Your task to perform on an android device: View the shopping cart on target. Add razer huntsman to the cart on target Image 0: 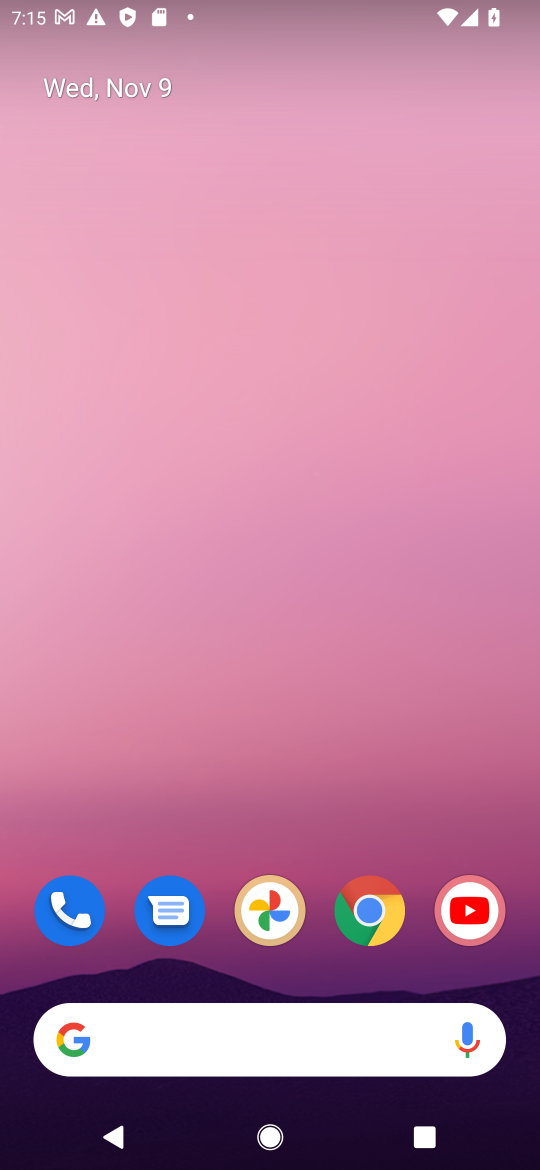
Step 0: click (363, 929)
Your task to perform on an android device: View the shopping cart on target. Add razer huntsman to the cart on target Image 1: 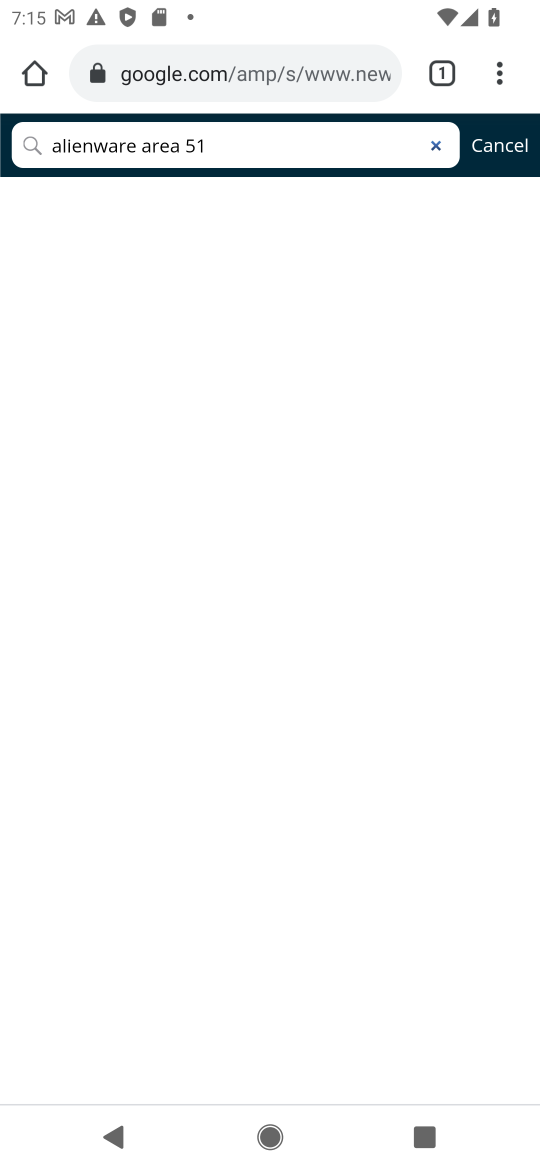
Step 1: click (229, 80)
Your task to perform on an android device: View the shopping cart on target. Add razer huntsman to the cart on target Image 2: 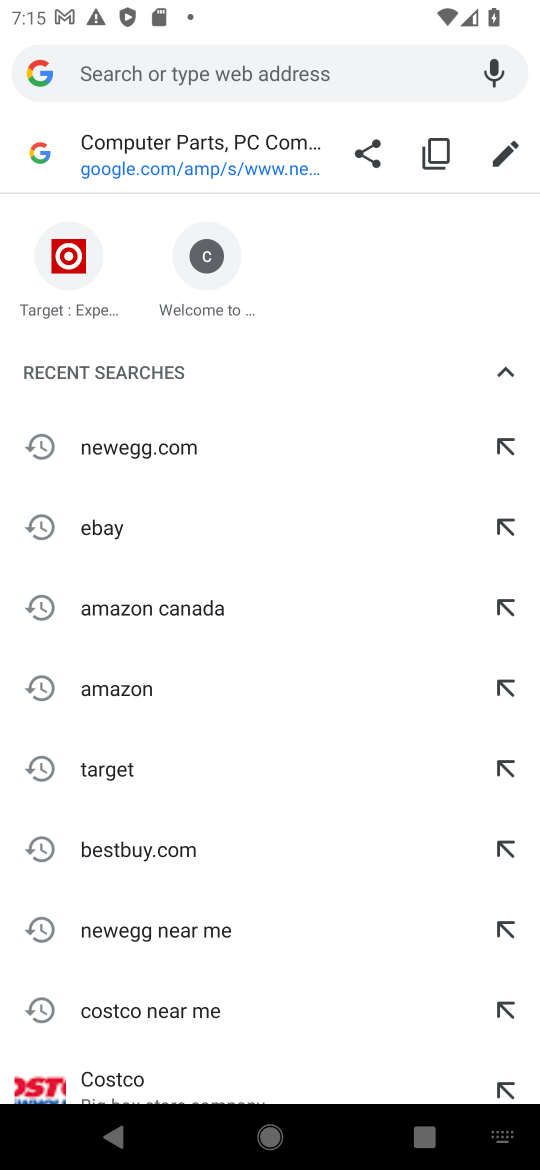
Step 2: click (69, 273)
Your task to perform on an android device: View the shopping cart on target. Add razer huntsman to the cart on target Image 3: 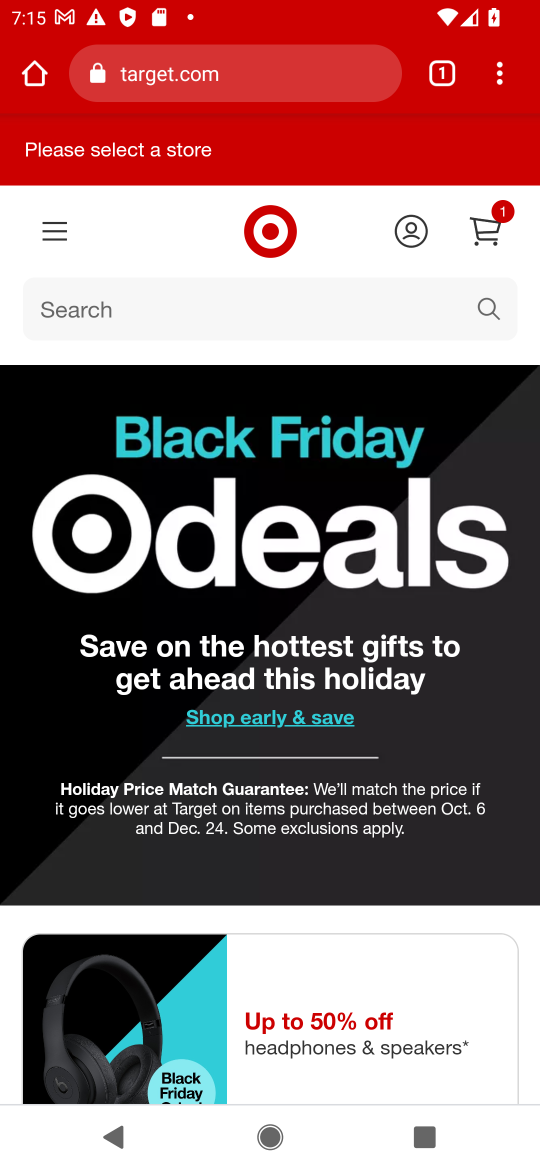
Step 3: click (490, 238)
Your task to perform on an android device: View the shopping cart on target. Add razer huntsman to the cart on target Image 4: 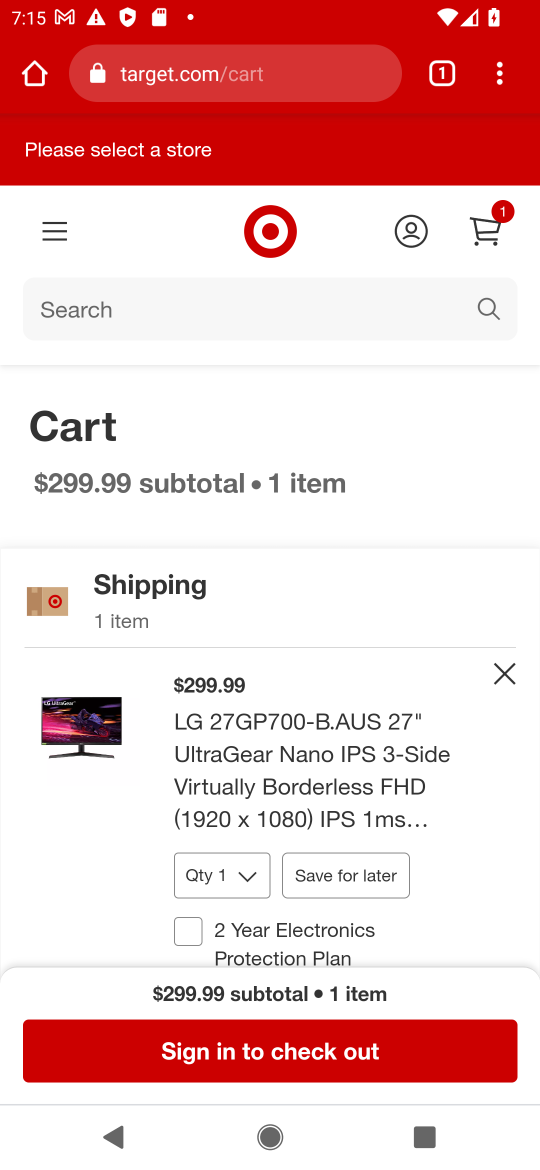
Step 4: drag from (310, 673) to (339, 426)
Your task to perform on an android device: View the shopping cart on target. Add razer huntsman to the cart on target Image 5: 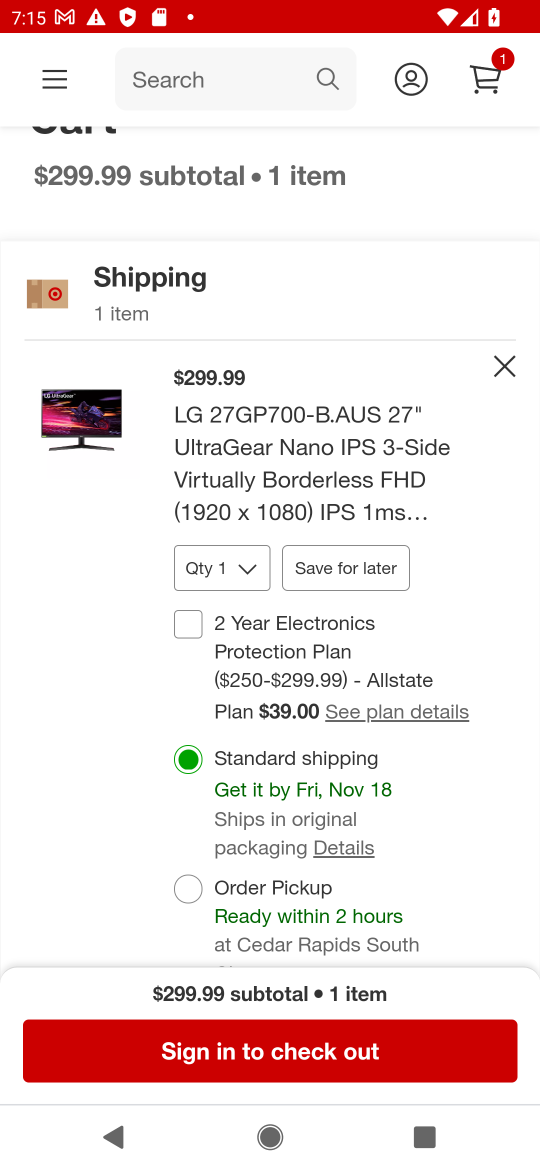
Step 5: drag from (186, 500) to (170, 977)
Your task to perform on an android device: View the shopping cart on target. Add razer huntsman to the cart on target Image 6: 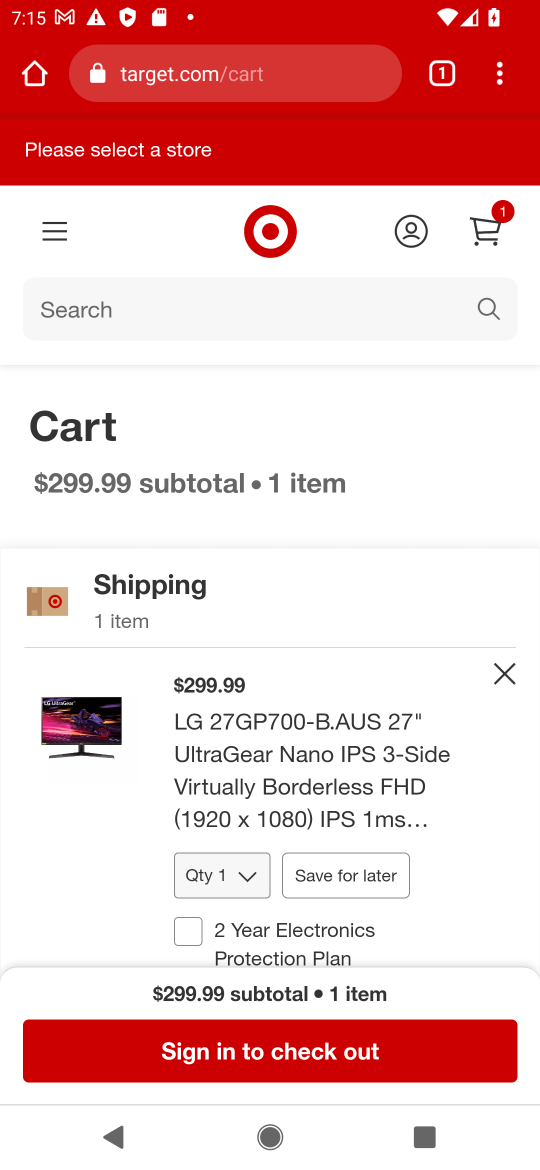
Step 6: click (480, 229)
Your task to perform on an android device: View the shopping cart on target. Add razer huntsman to the cart on target Image 7: 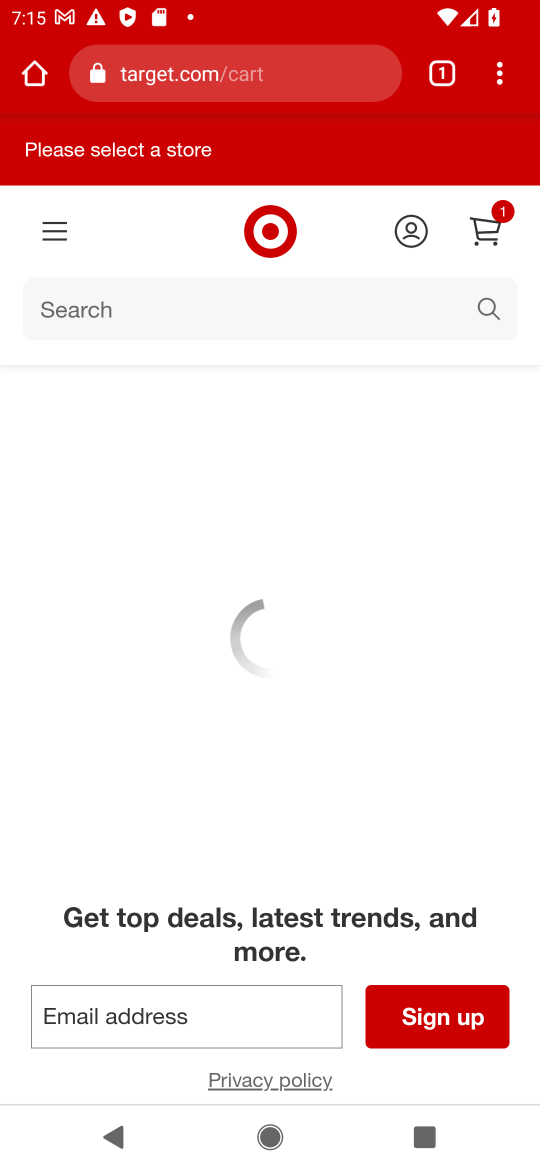
Step 7: click (480, 307)
Your task to perform on an android device: View the shopping cart on target. Add razer huntsman to the cart on target Image 8: 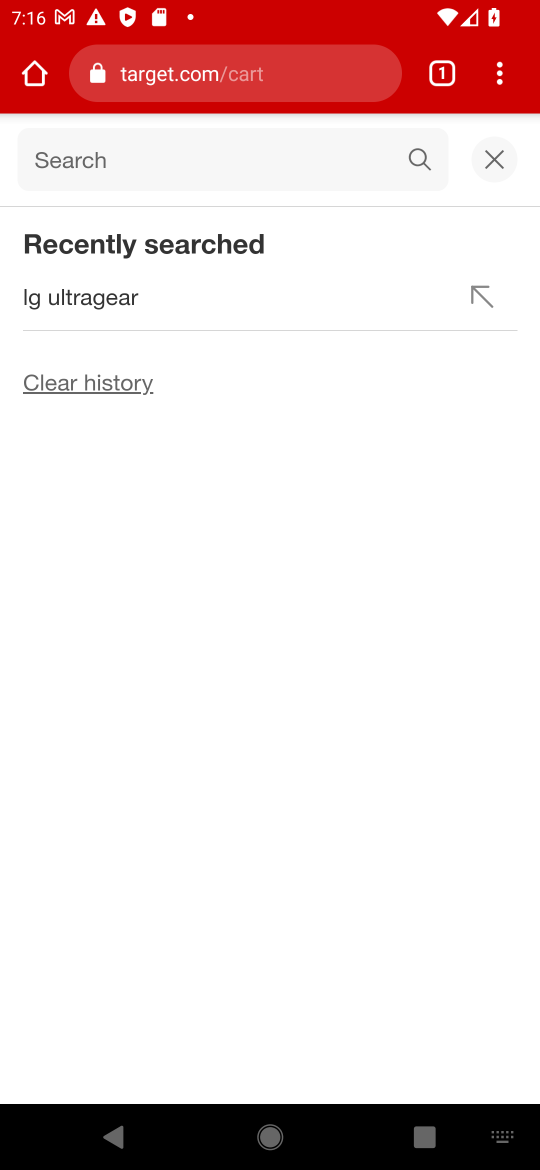
Step 8: type "razer huntsman"
Your task to perform on an android device: View the shopping cart on target. Add razer huntsman to the cart on target Image 9: 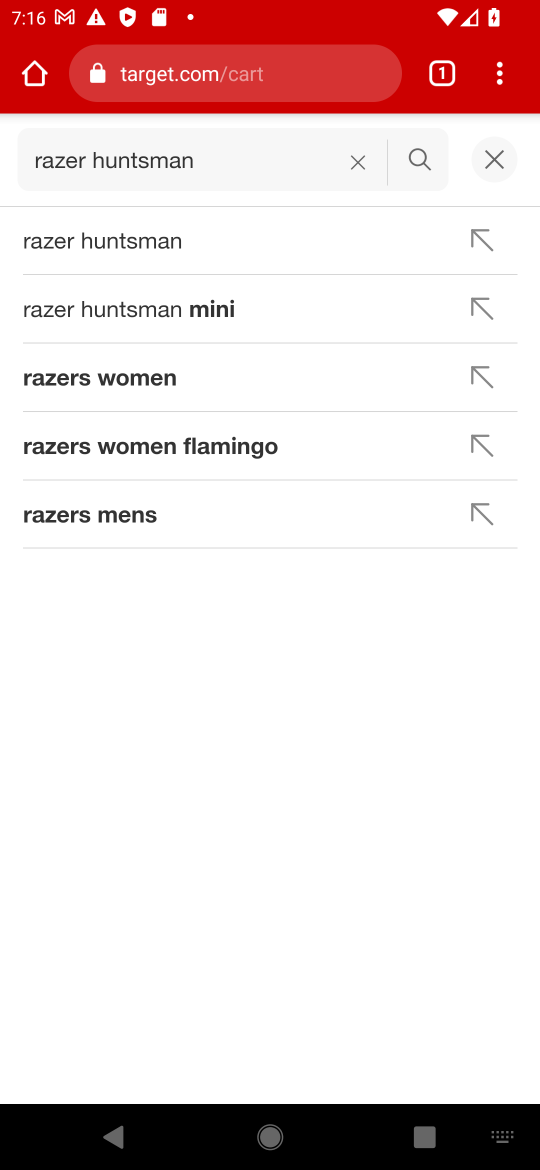
Step 9: click (88, 234)
Your task to perform on an android device: View the shopping cart on target. Add razer huntsman to the cart on target Image 10: 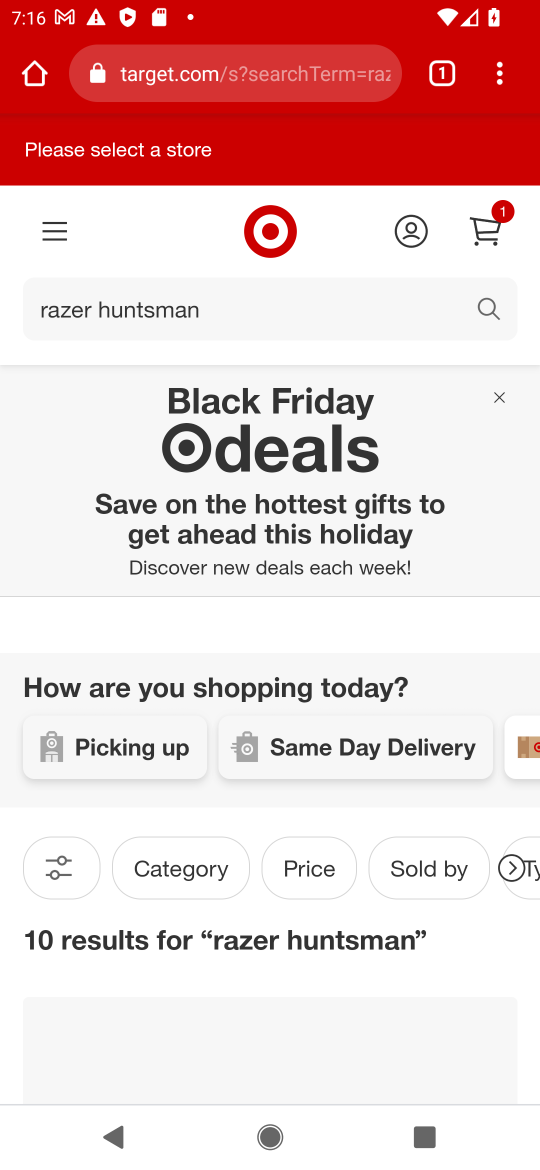
Step 10: drag from (264, 769) to (238, 314)
Your task to perform on an android device: View the shopping cart on target. Add razer huntsman to the cart on target Image 11: 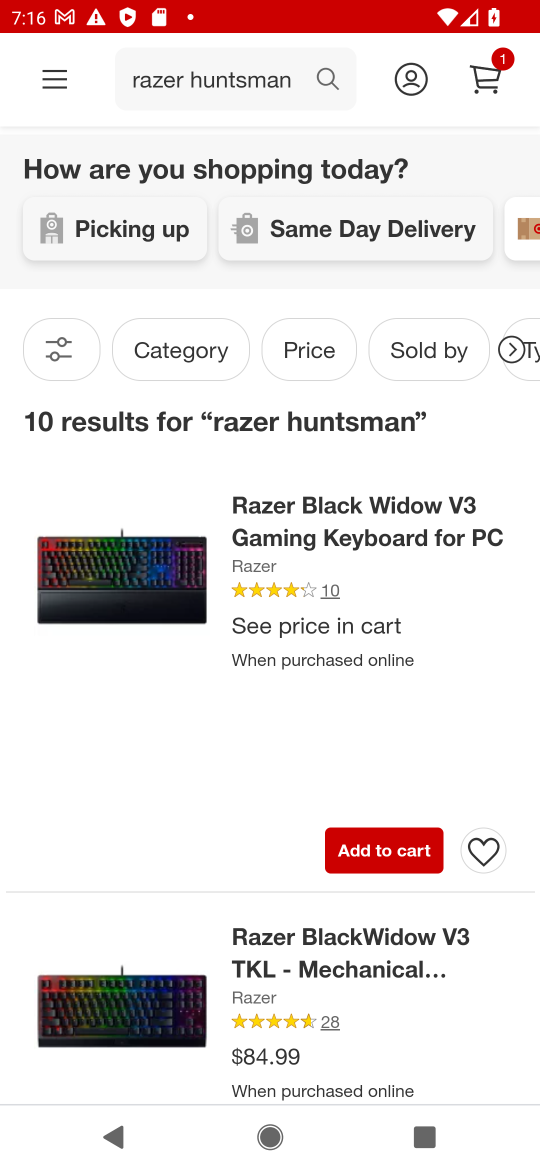
Step 11: drag from (174, 831) to (184, 479)
Your task to perform on an android device: View the shopping cart on target. Add razer huntsman to the cart on target Image 12: 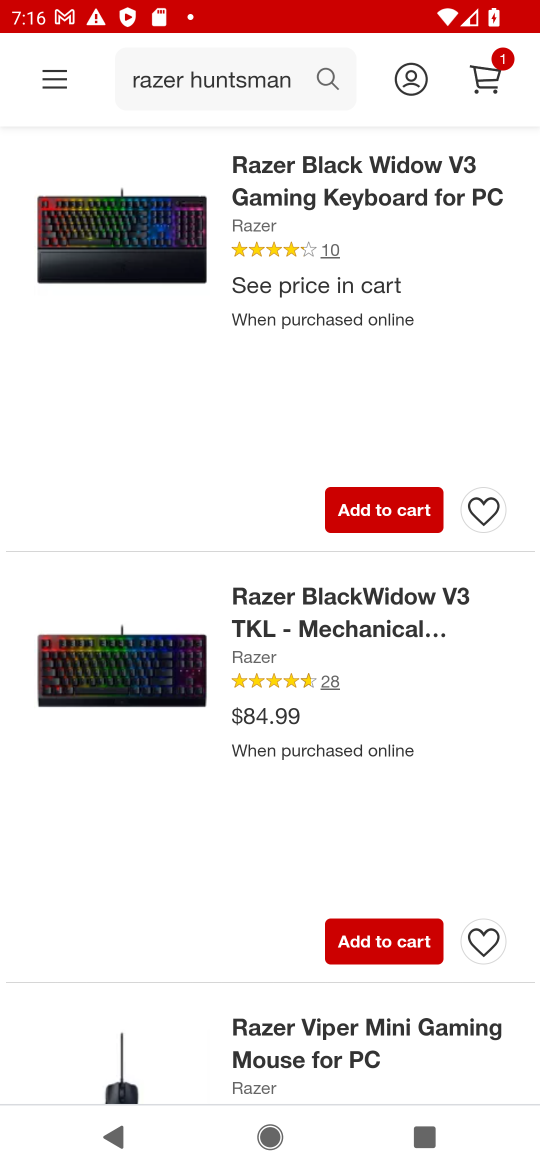
Step 12: drag from (221, 858) to (206, 377)
Your task to perform on an android device: View the shopping cart on target. Add razer huntsman to the cart on target Image 13: 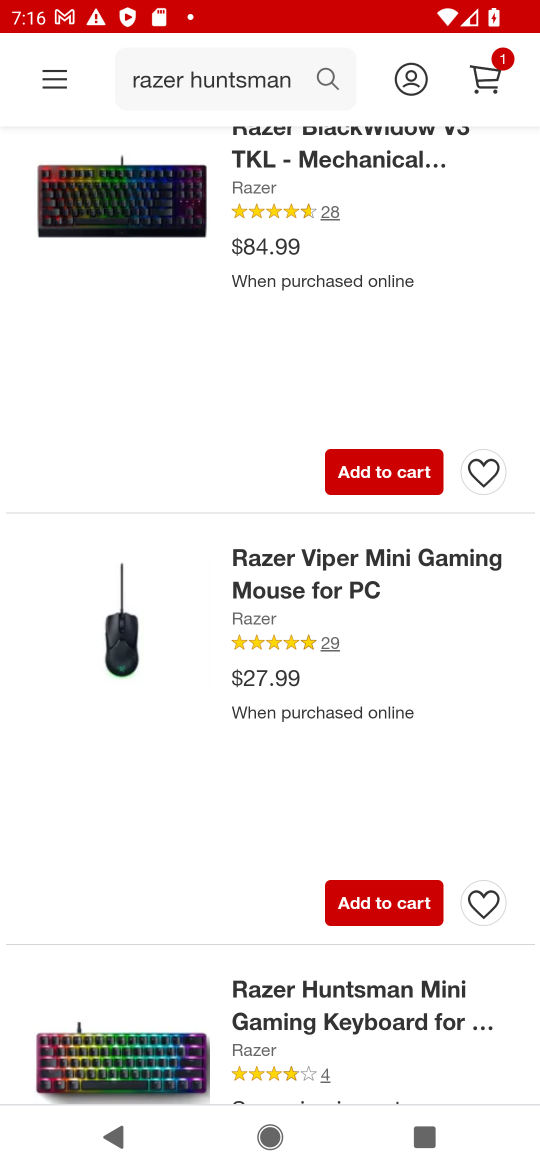
Step 13: drag from (223, 828) to (225, 551)
Your task to perform on an android device: View the shopping cart on target. Add razer huntsman to the cart on target Image 14: 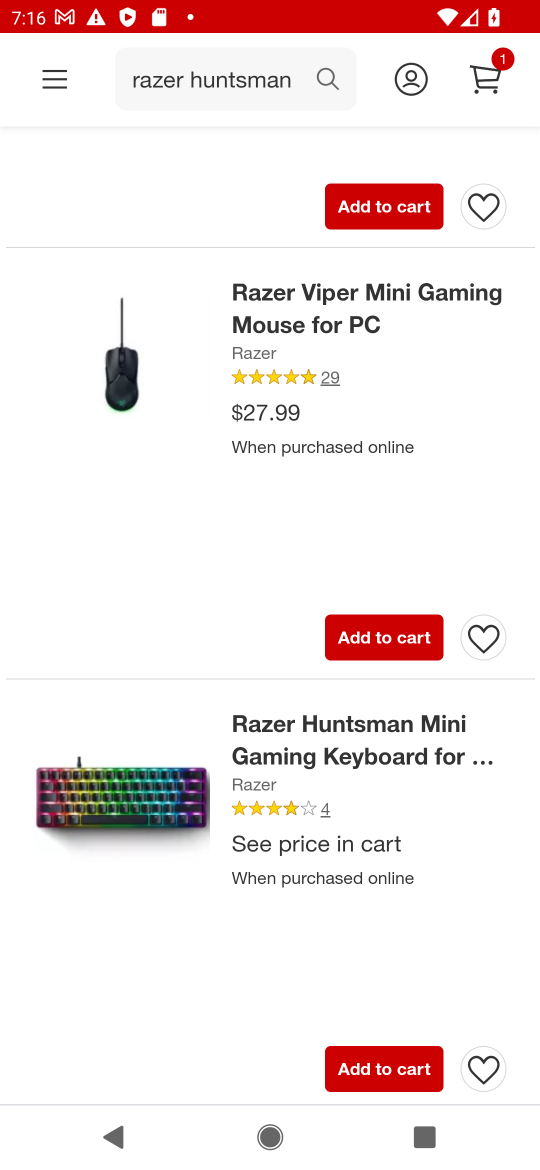
Step 14: drag from (227, 817) to (235, 636)
Your task to perform on an android device: View the shopping cart on target. Add razer huntsman to the cart on target Image 15: 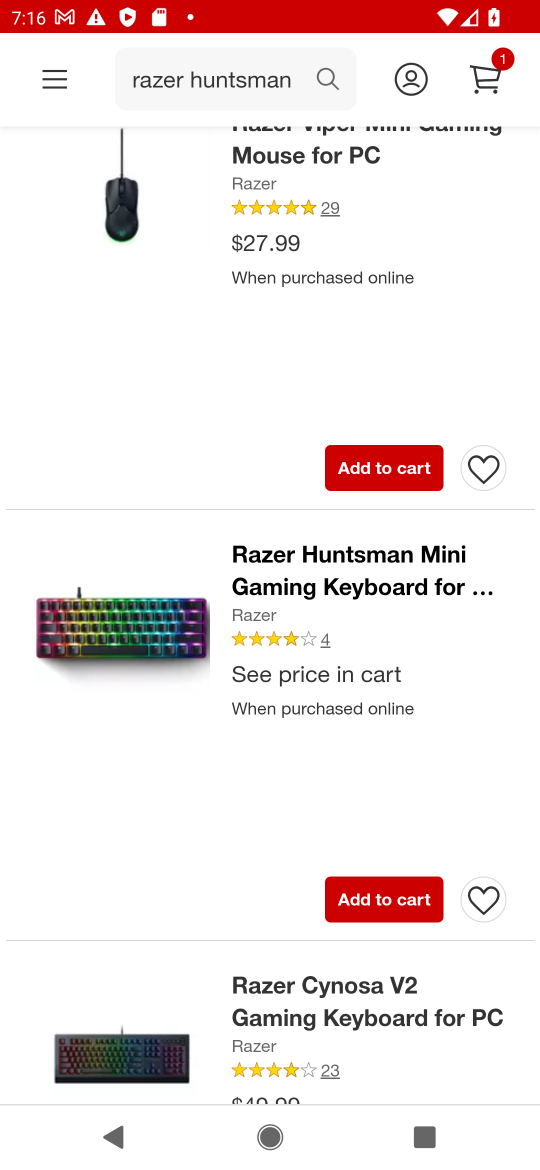
Step 15: click (364, 896)
Your task to perform on an android device: View the shopping cart on target. Add razer huntsman to the cart on target Image 16: 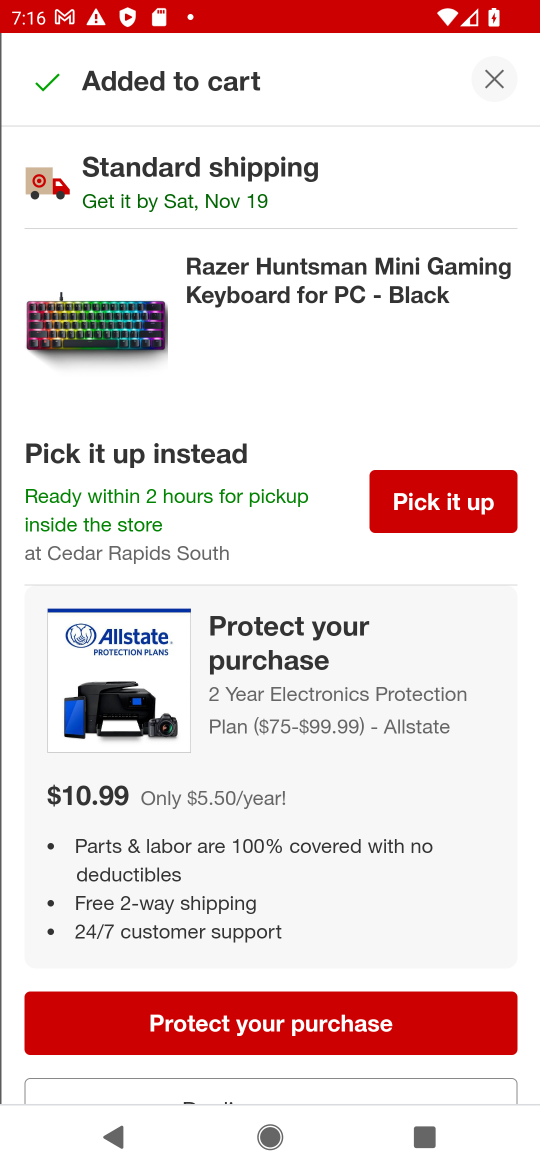
Step 16: task complete